Your task to perform on an android device: Open the stopwatch Image 0: 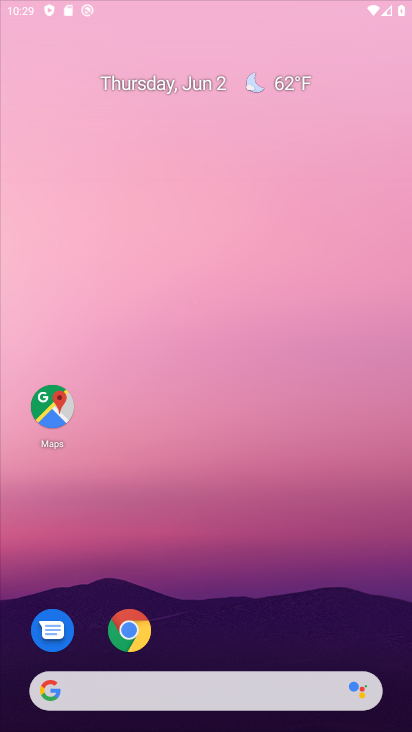
Step 0: press home button
Your task to perform on an android device: Open the stopwatch Image 1: 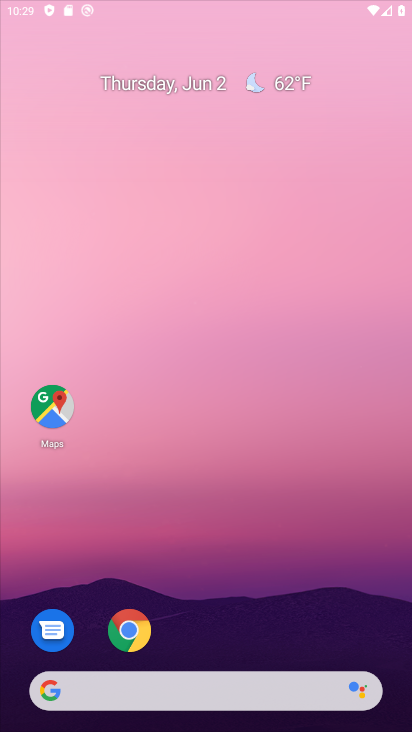
Step 1: drag from (167, 688) to (353, 91)
Your task to perform on an android device: Open the stopwatch Image 2: 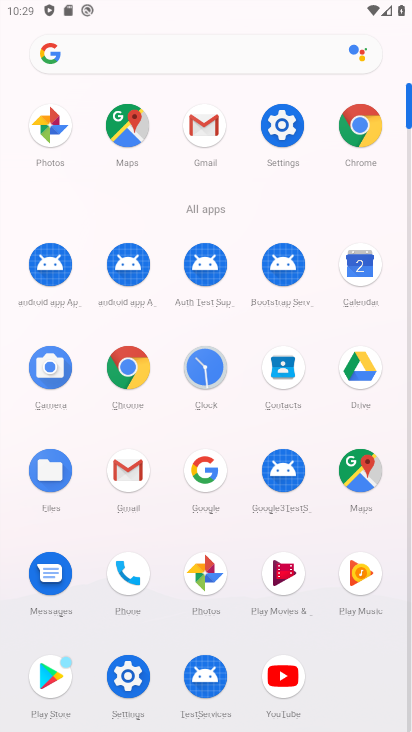
Step 2: click (210, 369)
Your task to perform on an android device: Open the stopwatch Image 3: 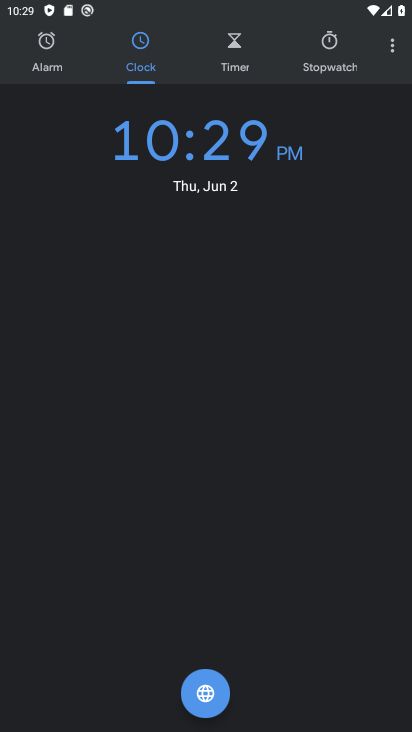
Step 3: click (332, 62)
Your task to perform on an android device: Open the stopwatch Image 4: 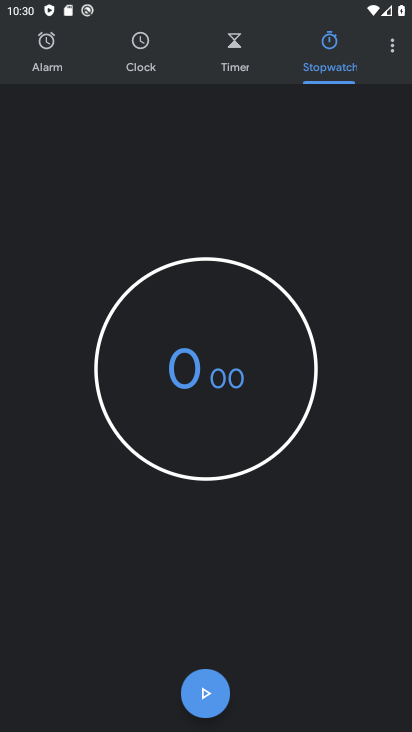
Step 4: task complete